Your task to perform on an android device: Open settings on Google Maps Image 0: 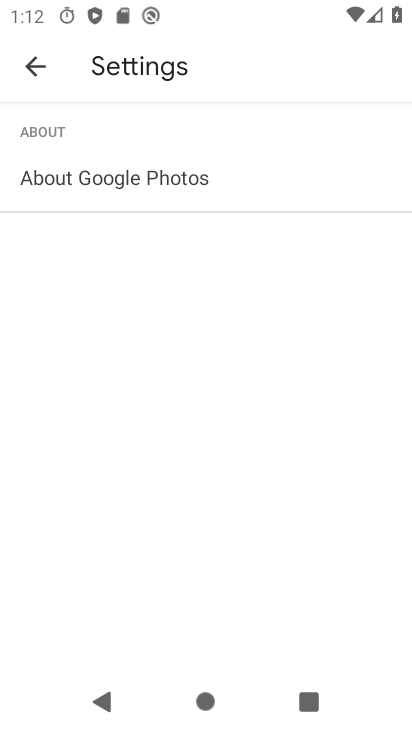
Step 0: press home button
Your task to perform on an android device: Open settings on Google Maps Image 1: 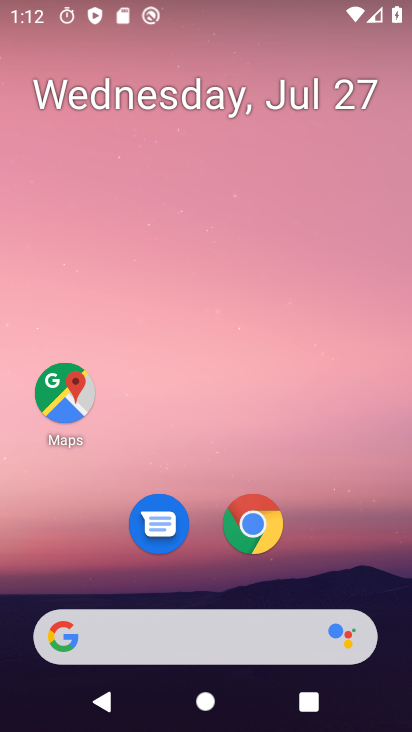
Step 1: click (60, 389)
Your task to perform on an android device: Open settings on Google Maps Image 2: 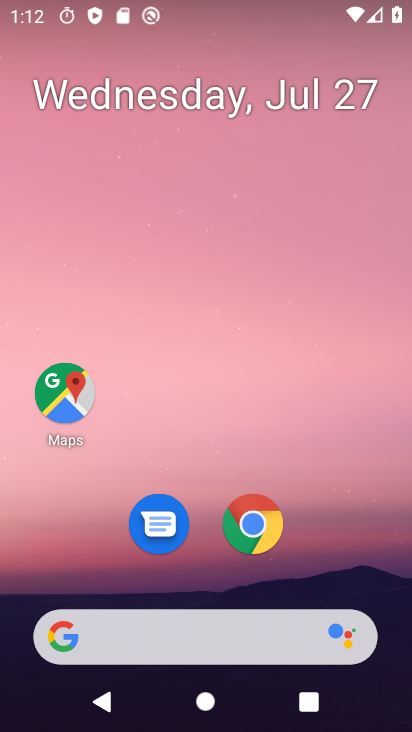
Step 2: click (60, 389)
Your task to perform on an android device: Open settings on Google Maps Image 3: 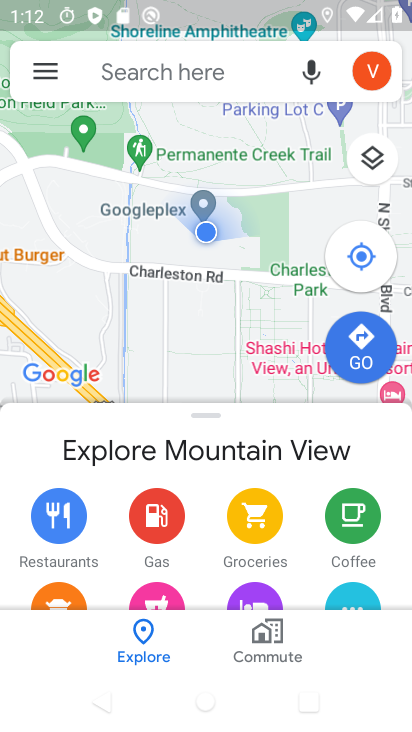
Step 3: task complete